Your task to perform on an android device: uninstall "Truecaller" Image 0: 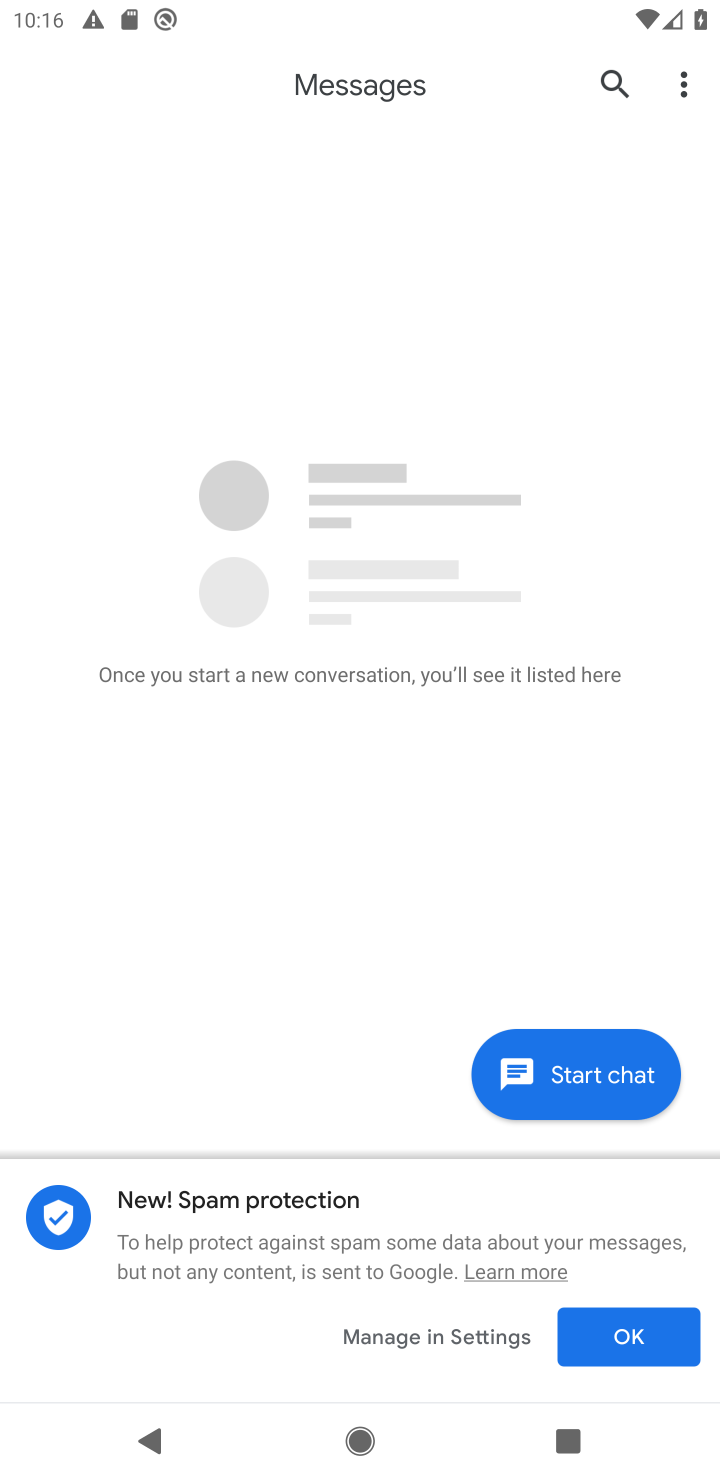
Step 0: press home button
Your task to perform on an android device: uninstall "Truecaller" Image 1: 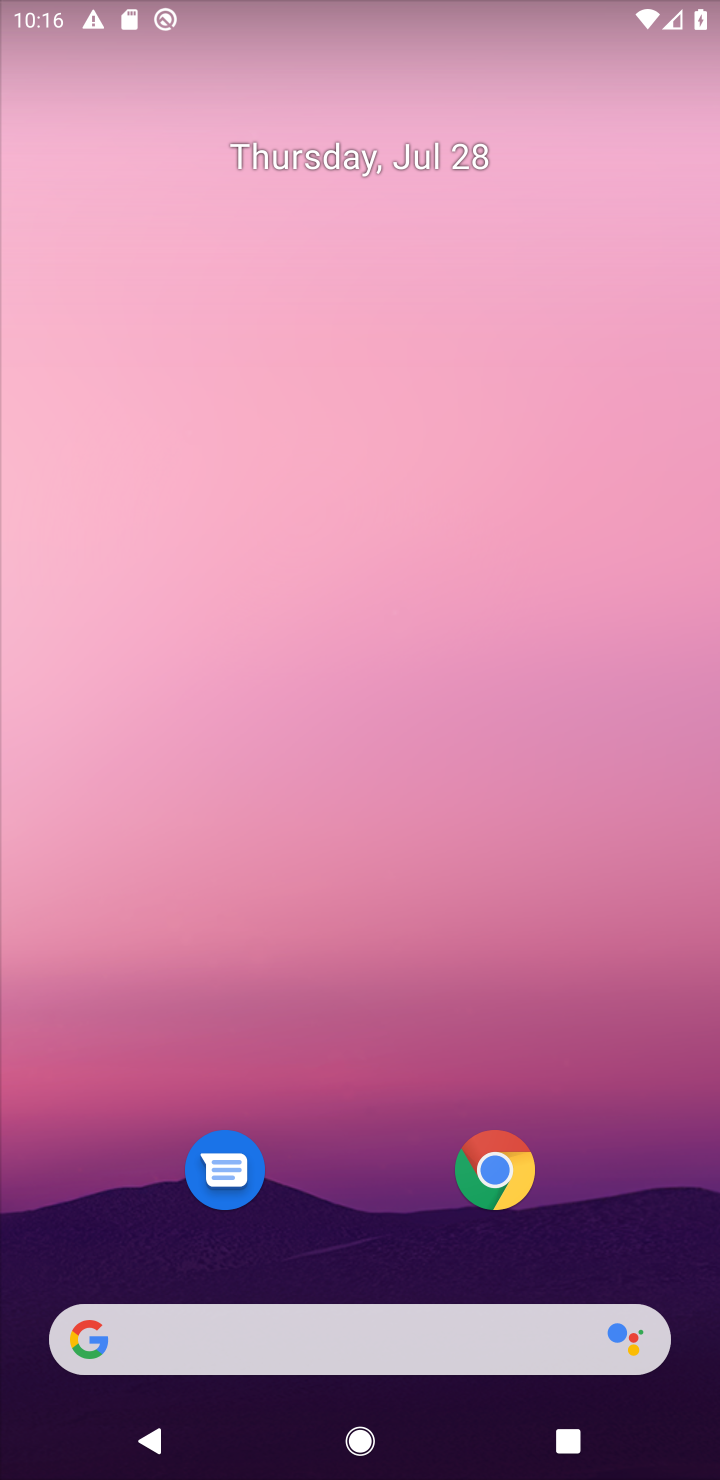
Step 1: drag from (314, 1229) to (322, 22)
Your task to perform on an android device: uninstall "Truecaller" Image 2: 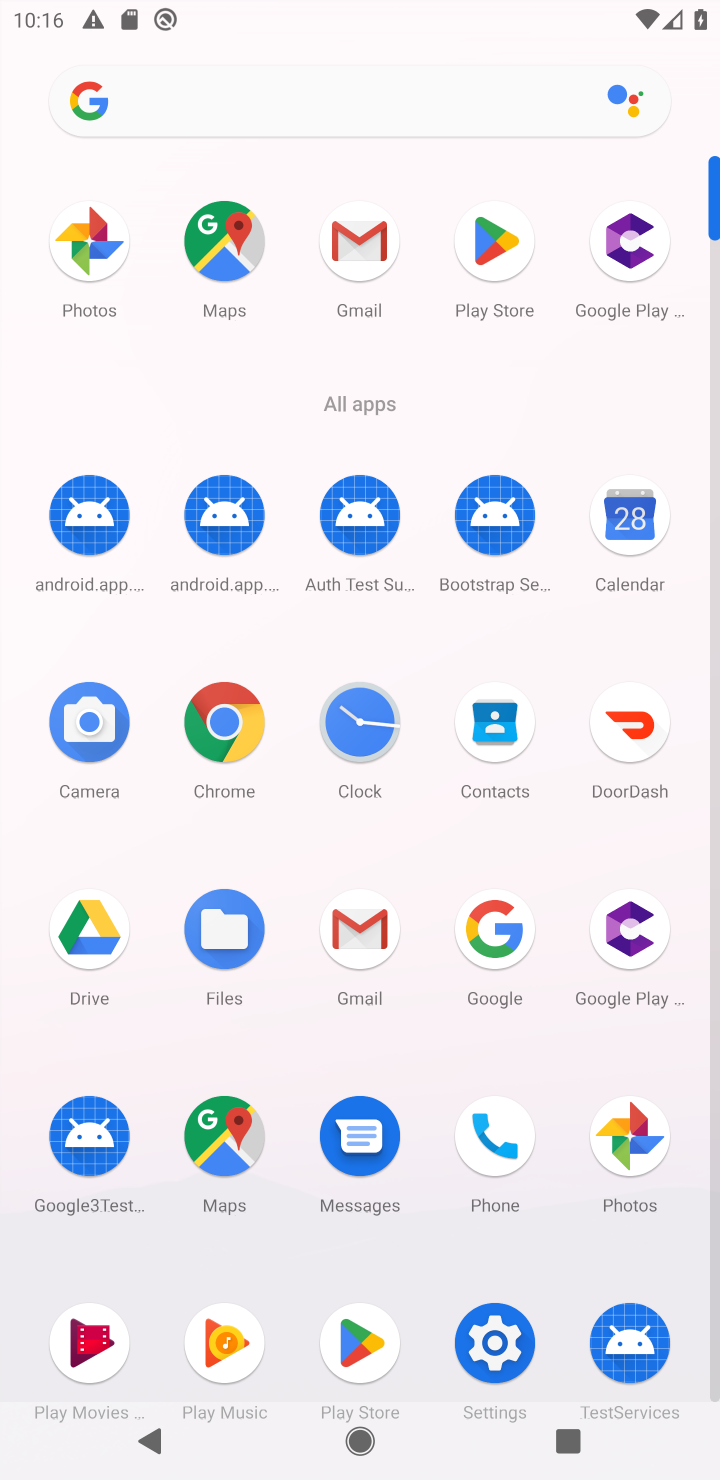
Step 2: click (366, 1356)
Your task to perform on an android device: uninstall "Truecaller" Image 3: 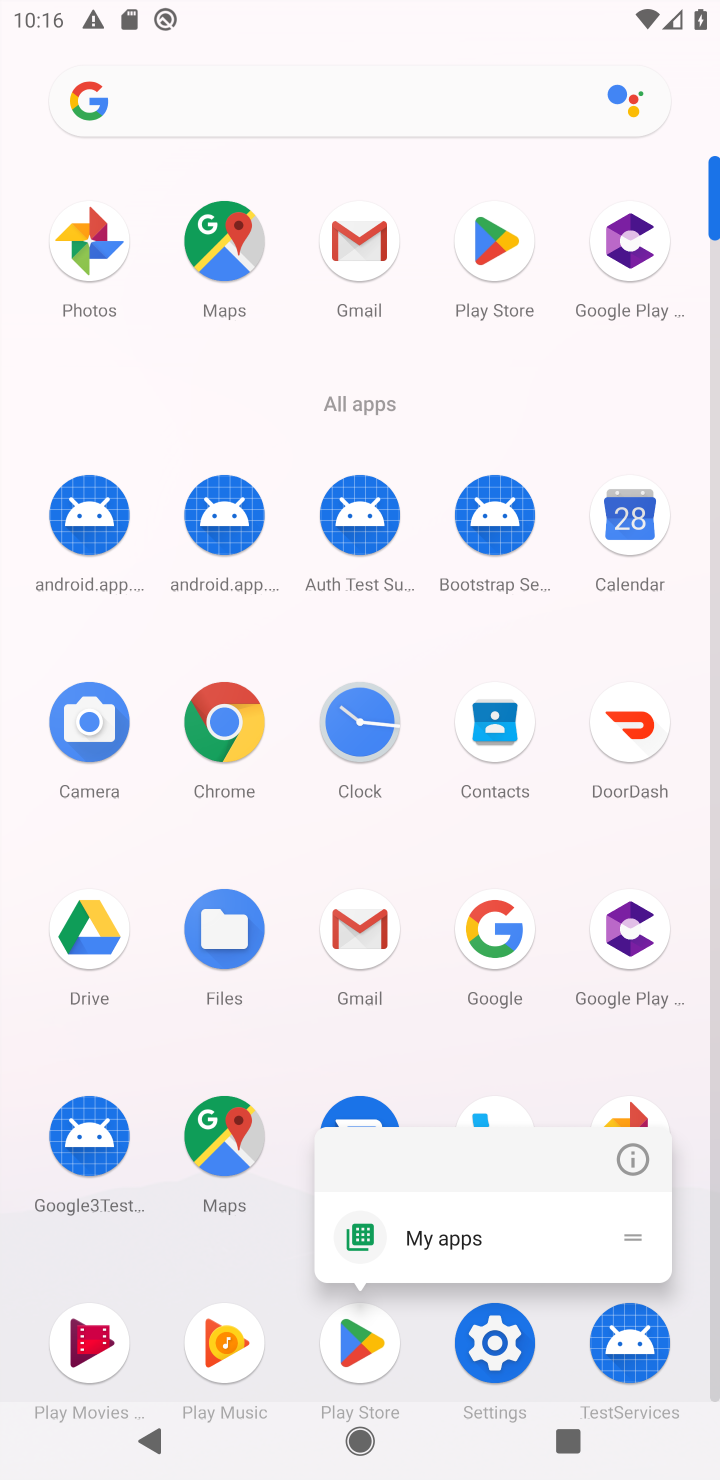
Step 3: click (348, 1342)
Your task to perform on an android device: uninstall "Truecaller" Image 4: 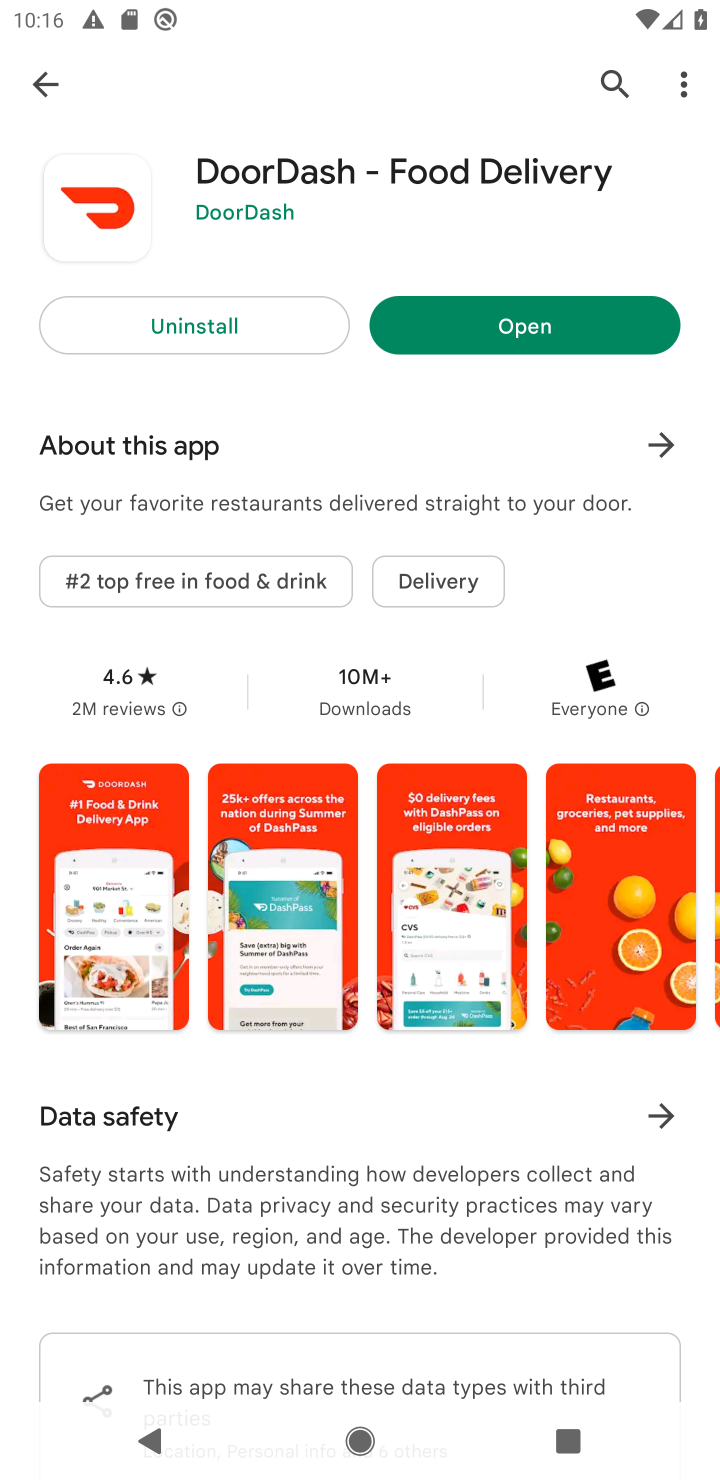
Step 4: click (50, 69)
Your task to perform on an android device: uninstall "Truecaller" Image 5: 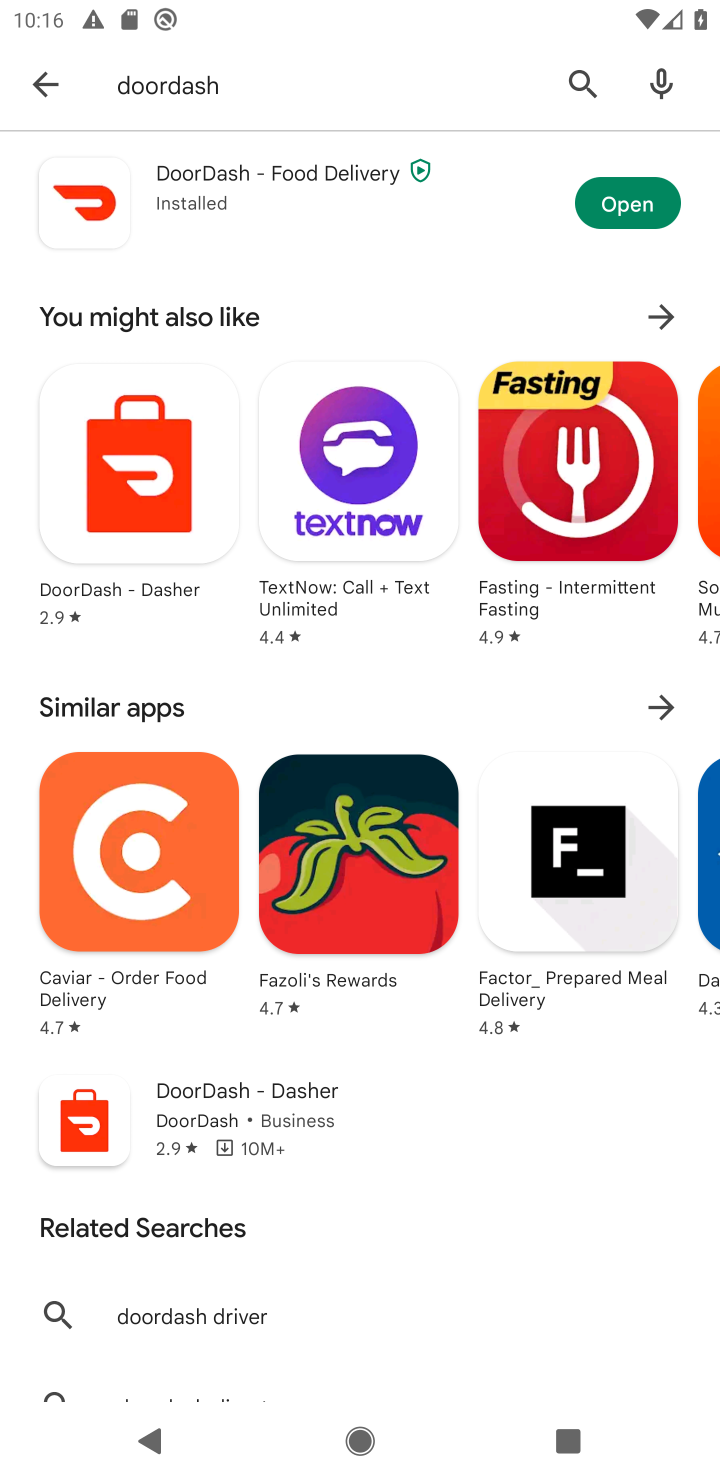
Step 5: click (288, 100)
Your task to perform on an android device: uninstall "Truecaller" Image 6: 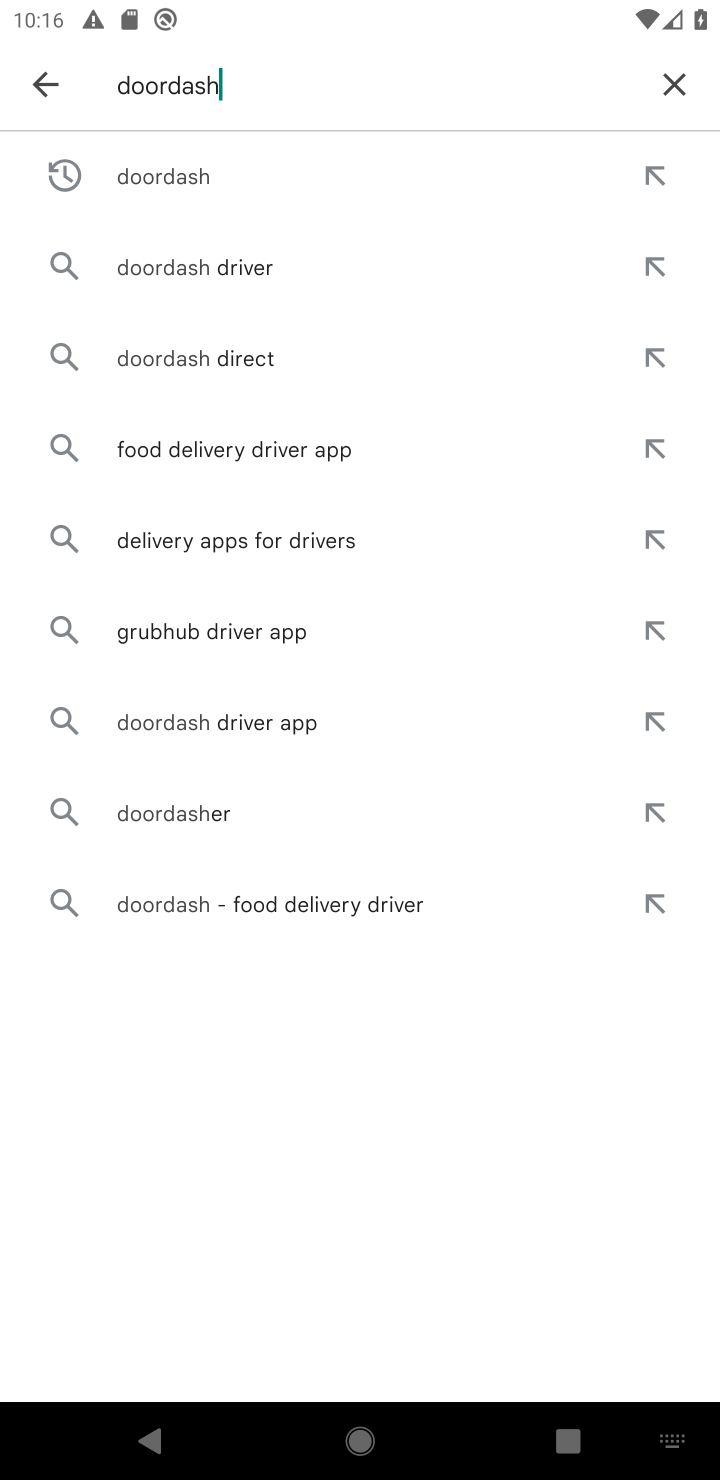
Step 6: click (666, 84)
Your task to perform on an android device: uninstall "Truecaller" Image 7: 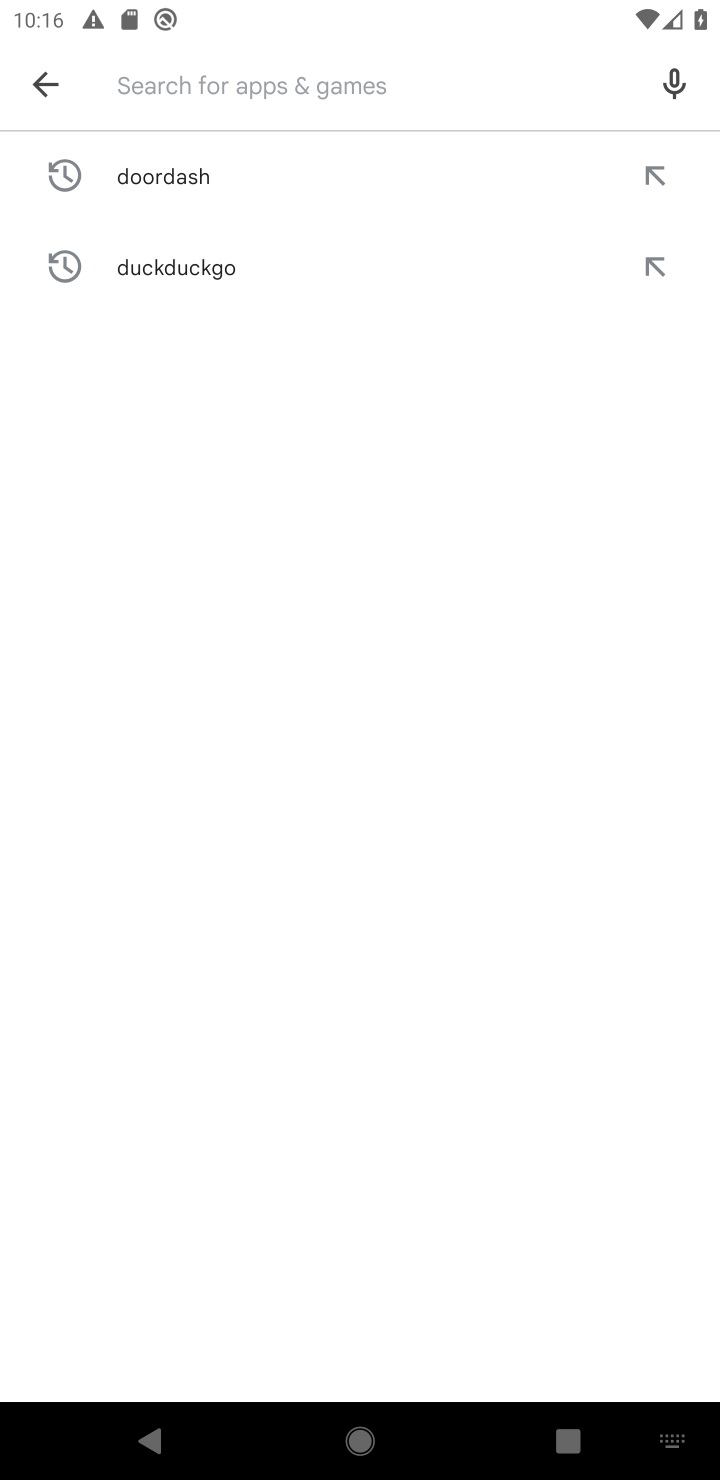
Step 7: type "Truecaller"
Your task to perform on an android device: uninstall "Truecaller" Image 8: 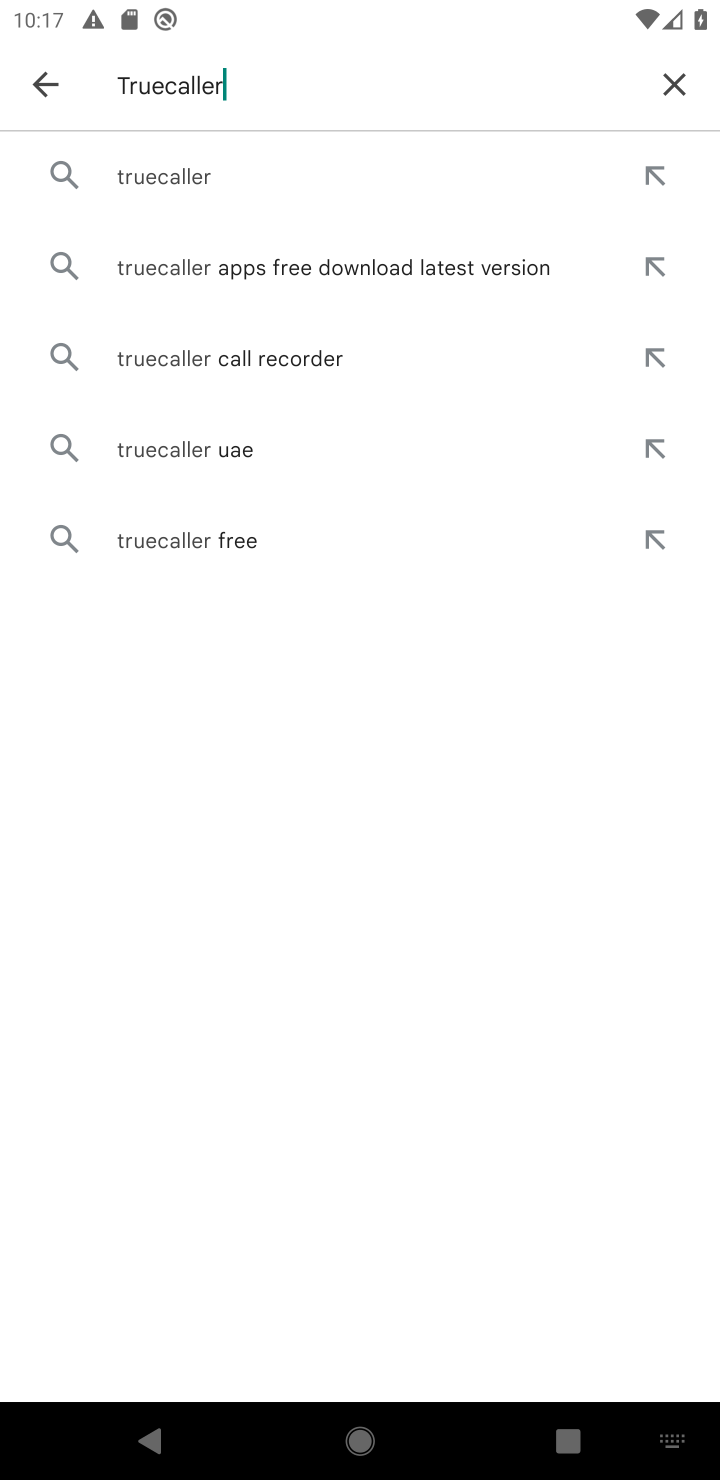
Step 8: click (170, 182)
Your task to perform on an android device: uninstall "Truecaller" Image 9: 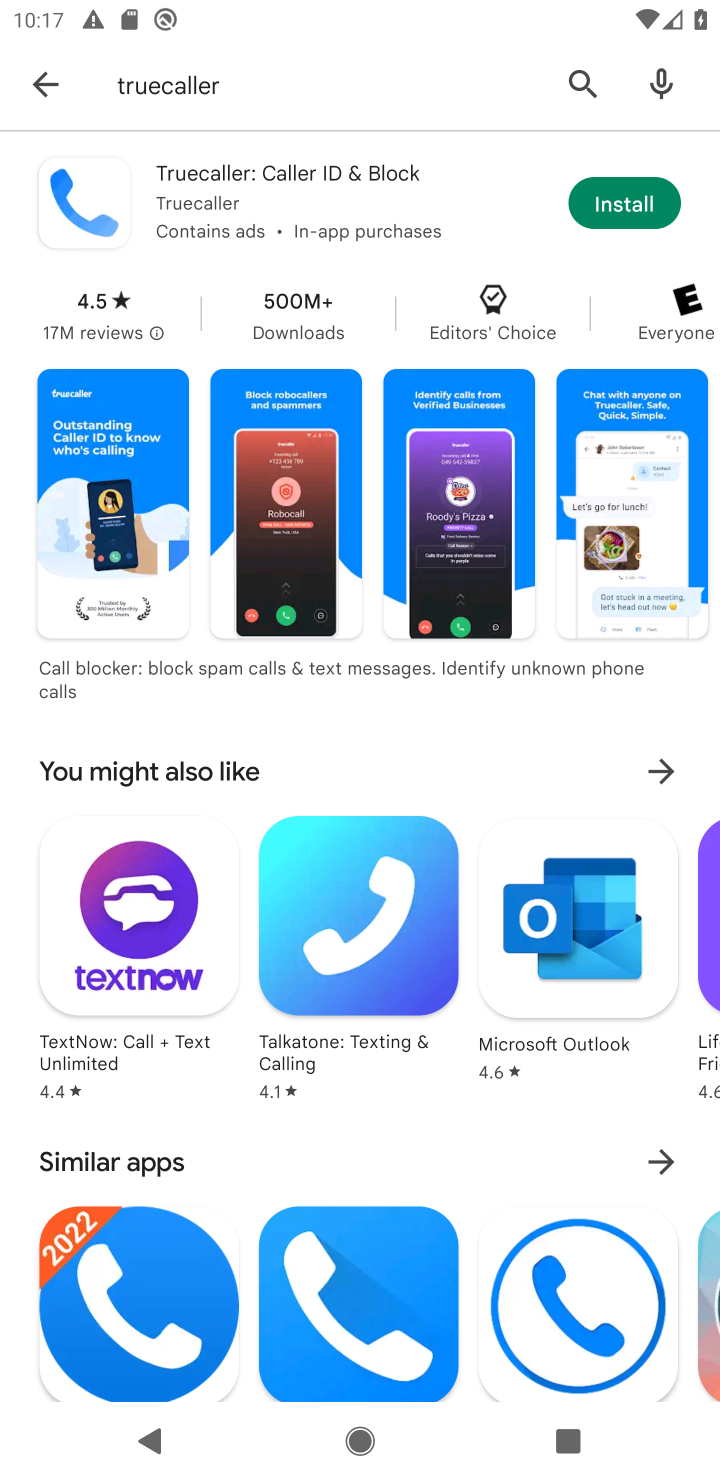
Step 9: task complete